Your task to perform on an android device: Show me popular videos on Youtube Image 0: 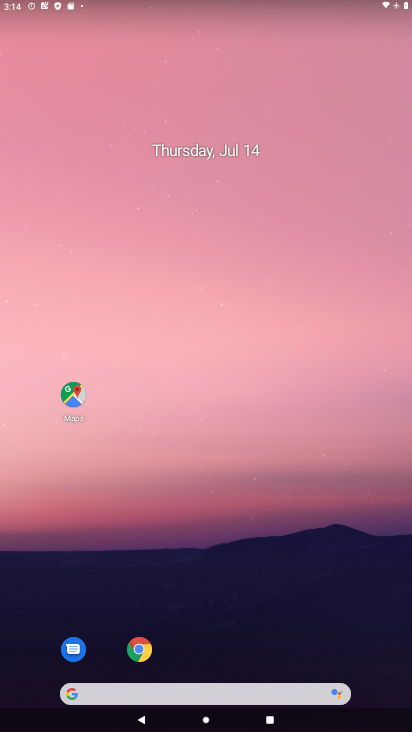
Step 0: drag from (248, 665) to (231, 1)
Your task to perform on an android device: Show me popular videos on Youtube Image 1: 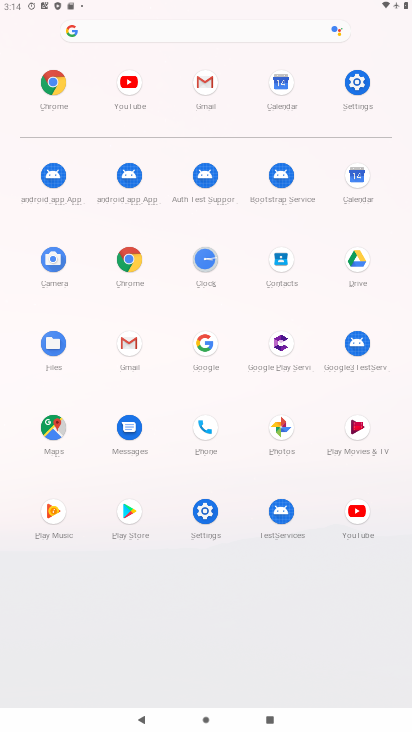
Step 1: click (363, 518)
Your task to perform on an android device: Show me popular videos on Youtube Image 2: 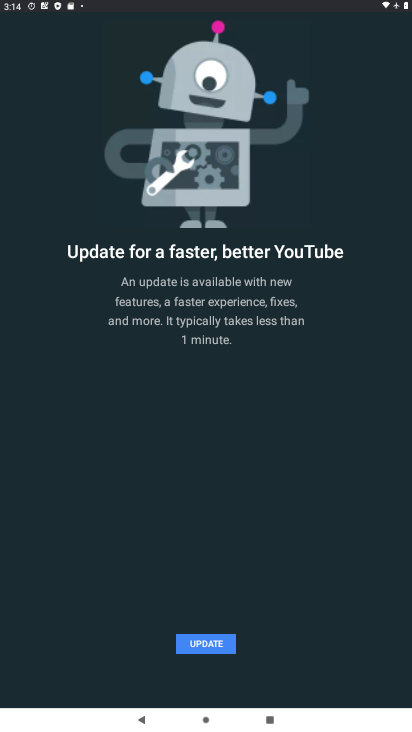
Step 2: click (206, 639)
Your task to perform on an android device: Show me popular videos on Youtube Image 3: 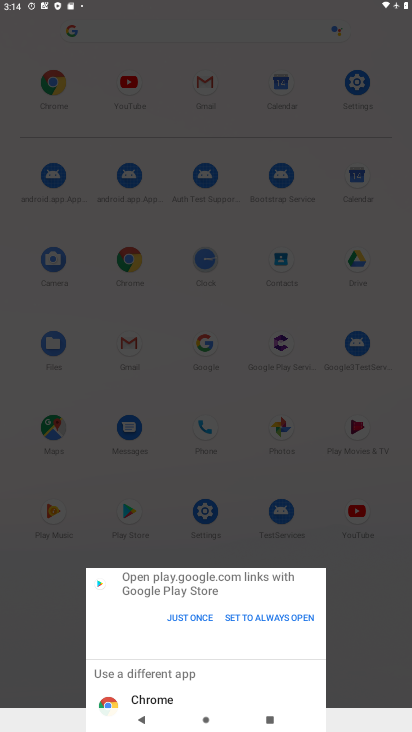
Step 3: click (199, 612)
Your task to perform on an android device: Show me popular videos on Youtube Image 4: 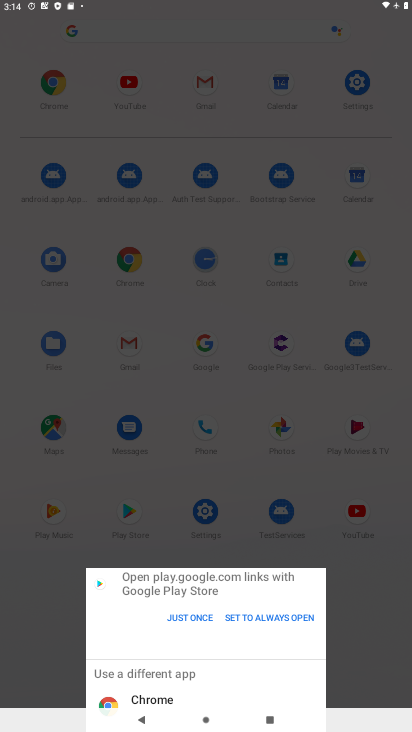
Step 4: click (184, 619)
Your task to perform on an android device: Show me popular videos on Youtube Image 5: 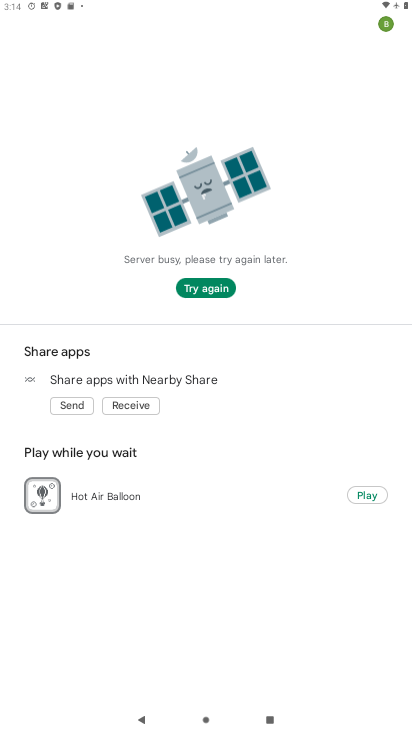
Step 5: click (215, 288)
Your task to perform on an android device: Show me popular videos on Youtube Image 6: 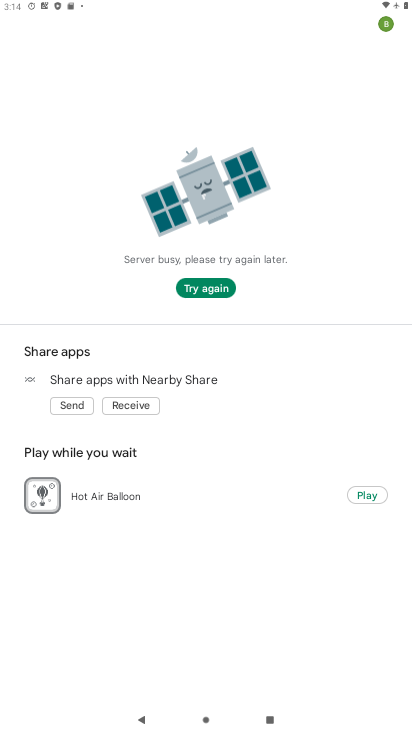
Step 6: click (200, 287)
Your task to perform on an android device: Show me popular videos on Youtube Image 7: 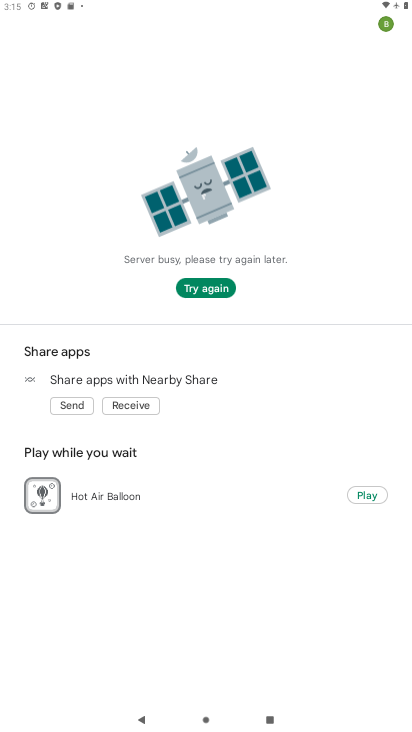
Step 7: task complete